Your task to perform on an android device: What's the news in Paraguay? Image 0: 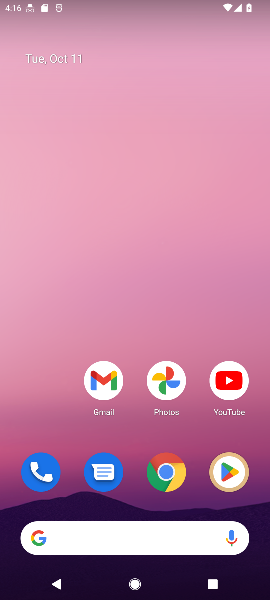
Step 0: click (166, 469)
Your task to perform on an android device: What's the news in Paraguay? Image 1: 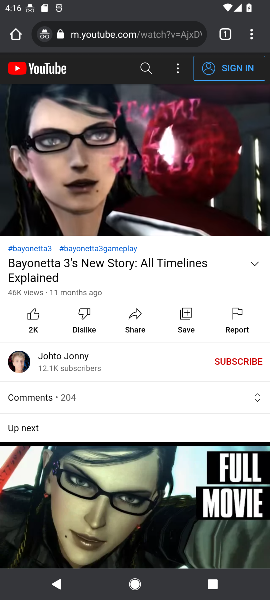
Step 1: click (124, 29)
Your task to perform on an android device: What's the news in Paraguay? Image 2: 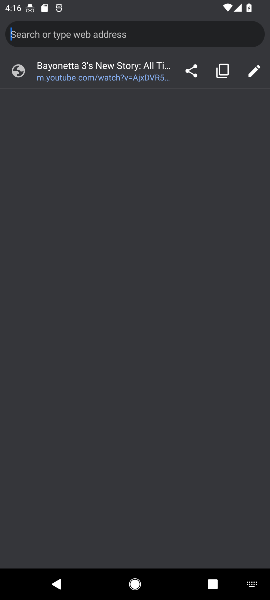
Step 2: type "What's the news in Paraguay?"
Your task to perform on an android device: What's the news in Paraguay? Image 3: 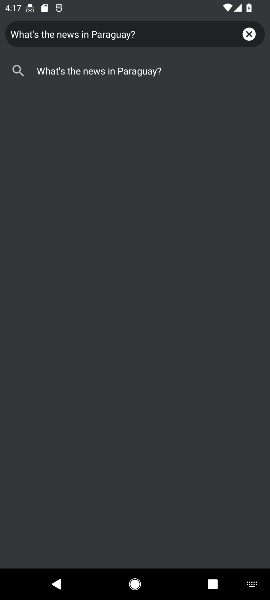
Step 3: click (148, 81)
Your task to perform on an android device: What's the news in Paraguay? Image 4: 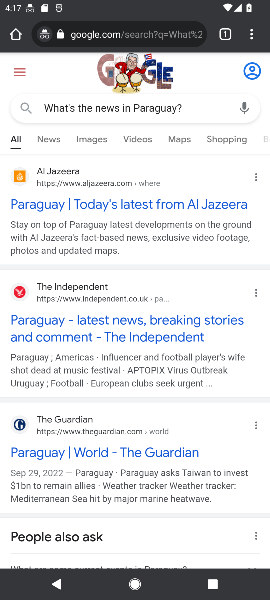
Step 4: click (51, 134)
Your task to perform on an android device: What's the news in Paraguay? Image 5: 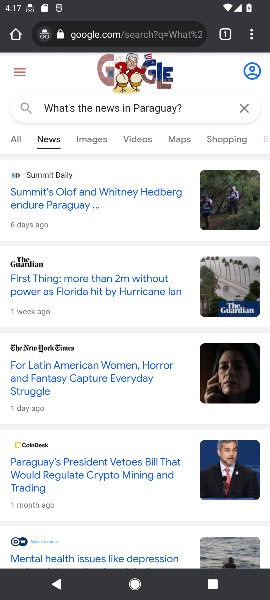
Step 5: task complete